Your task to perform on an android device: Open accessibility settings Image 0: 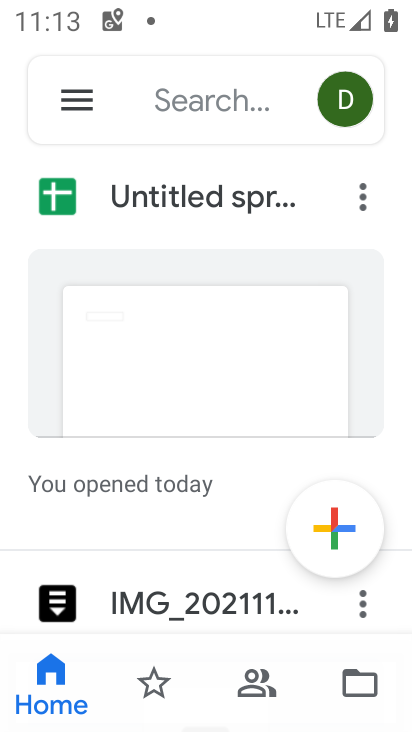
Step 0: press home button
Your task to perform on an android device: Open accessibility settings Image 1: 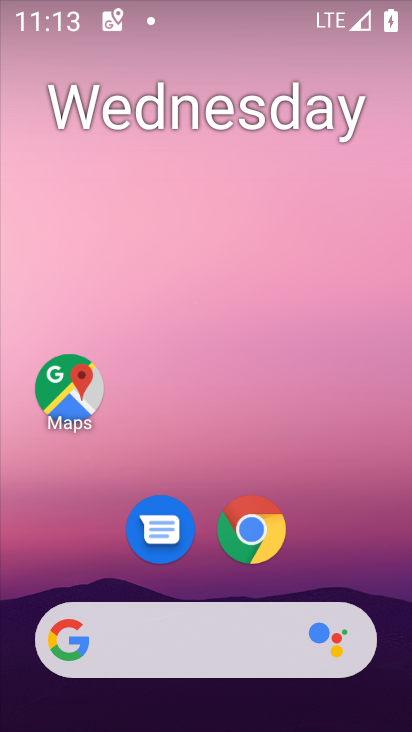
Step 1: drag from (394, 615) to (283, 91)
Your task to perform on an android device: Open accessibility settings Image 2: 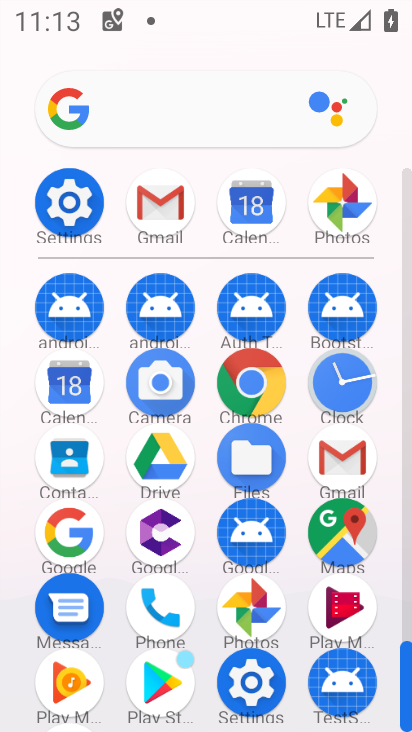
Step 2: click (409, 625)
Your task to perform on an android device: Open accessibility settings Image 3: 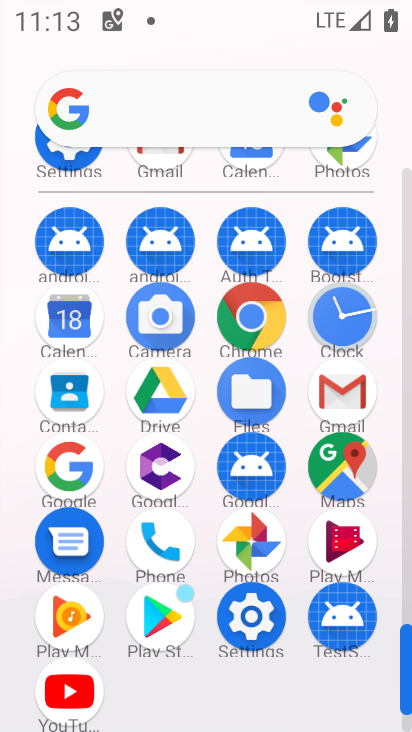
Step 3: click (252, 613)
Your task to perform on an android device: Open accessibility settings Image 4: 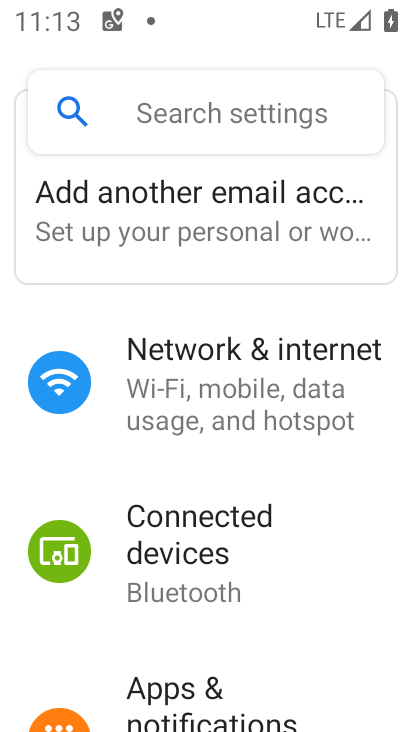
Step 4: drag from (336, 676) to (331, 179)
Your task to perform on an android device: Open accessibility settings Image 5: 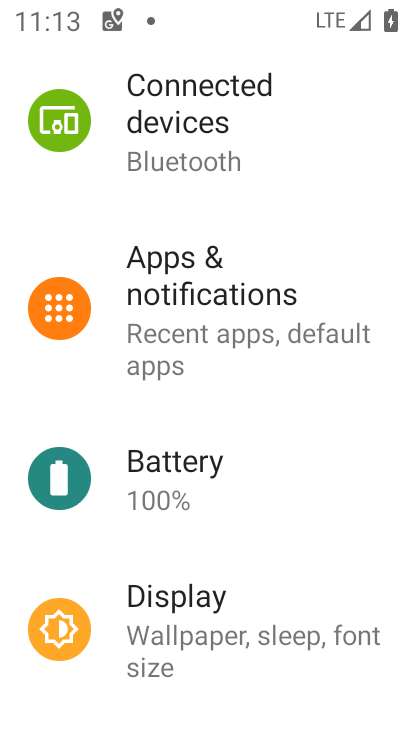
Step 5: drag from (361, 650) to (336, 202)
Your task to perform on an android device: Open accessibility settings Image 6: 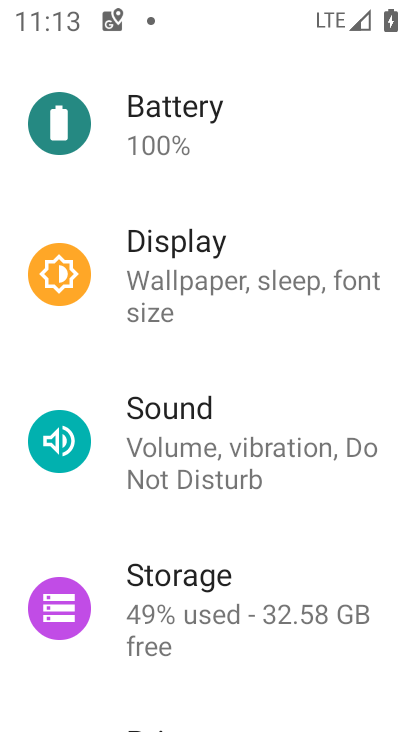
Step 6: drag from (329, 580) to (301, 158)
Your task to perform on an android device: Open accessibility settings Image 7: 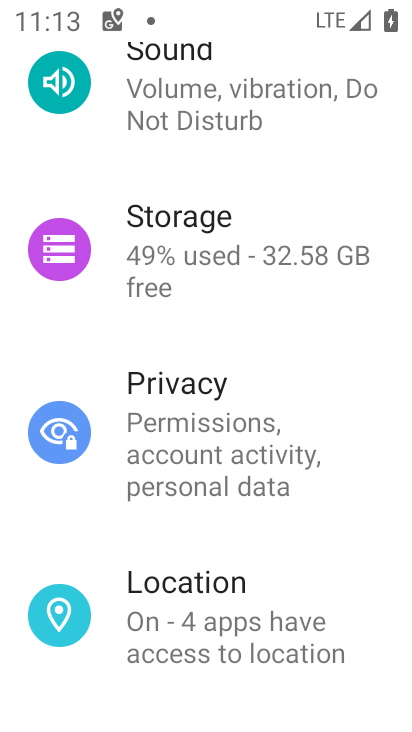
Step 7: drag from (331, 618) to (304, 182)
Your task to perform on an android device: Open accessibility settings Image 8: 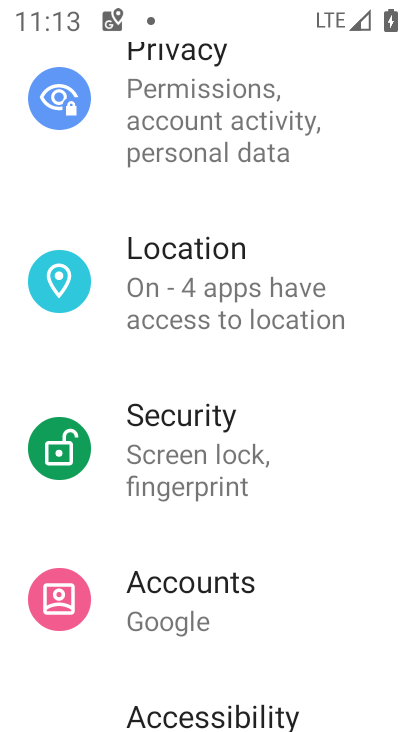
Step 8: drag from (319, 603) to (286, 277)
Your task to perform on an android device: Open accessibility settings Image 9: 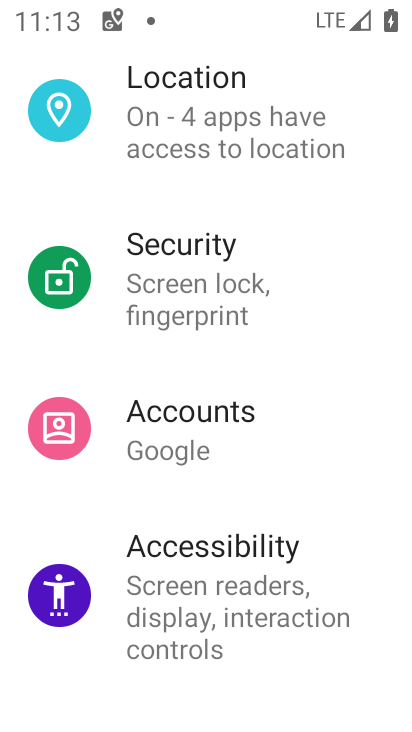
Step 9: click (192, 567)
Your task to perform on an android device: Open accessibility settings Image 10: 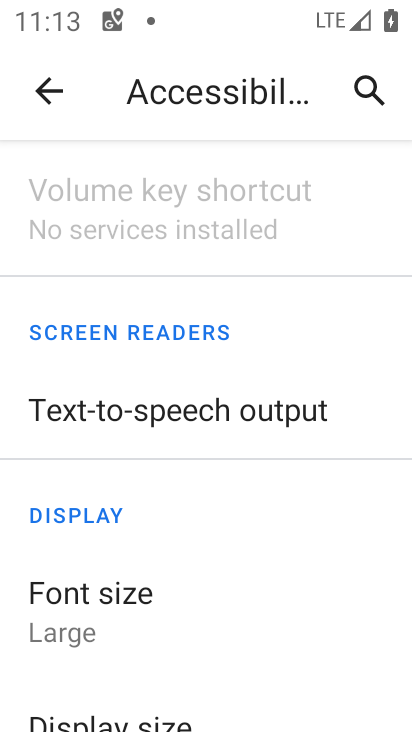
Step 10: task complete